Your task to perform on an android device: turn pop-ups on in chrome Image 0: 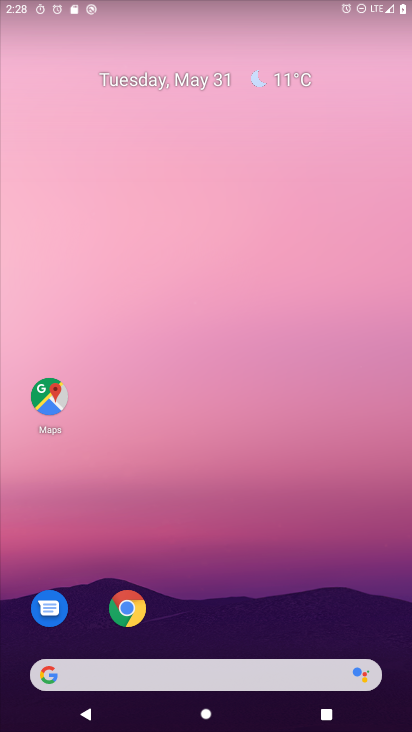
Step 0: click (128, 609)
Your task to perform on an android device: turn pop-ups on in chrome Image 1: 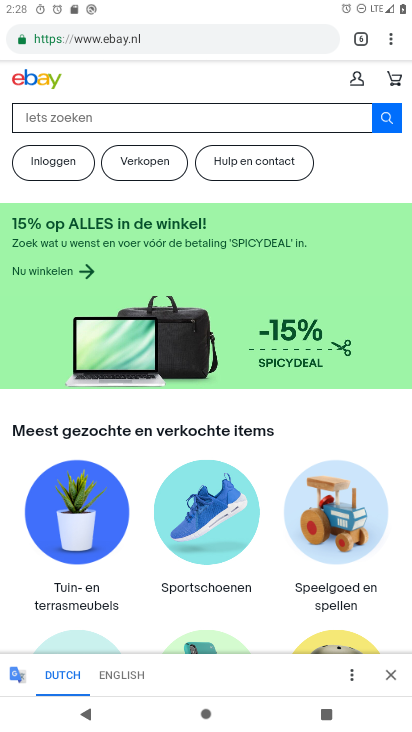
Step 1: click (389, 43)
Your task to perform on an android device: turn pop-ups on in chrome Image 2: 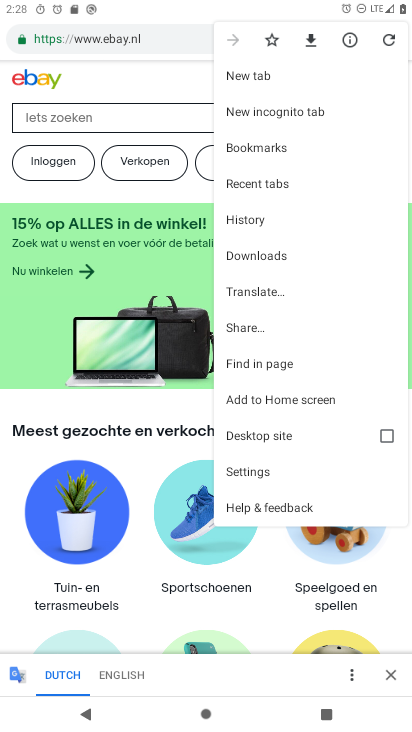
Step 2: click (250, 470)
Your task to perform on an android device: turn pop-ups on in chrome Image 3: 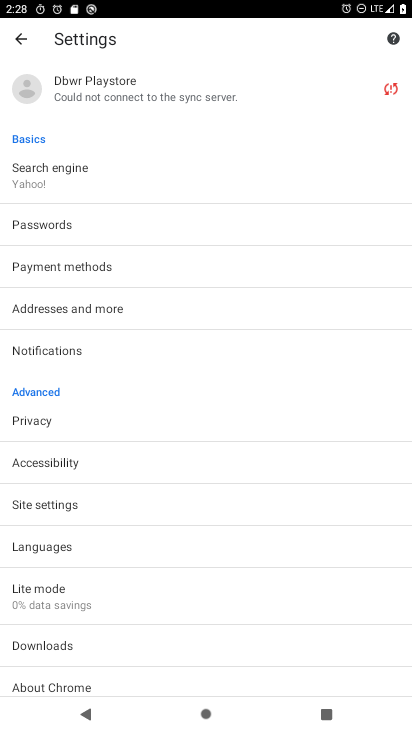
Step 3: click (80, 507)
Your task to perform on an android device: turn pop-ups on in chrome Image 4: 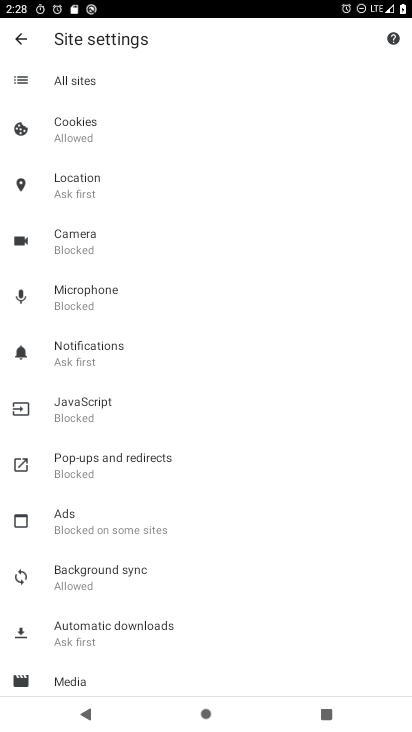
Step 4: click (82, 457)
Your task to perform on an android device: turn pop-ups on in chrome Image 5: 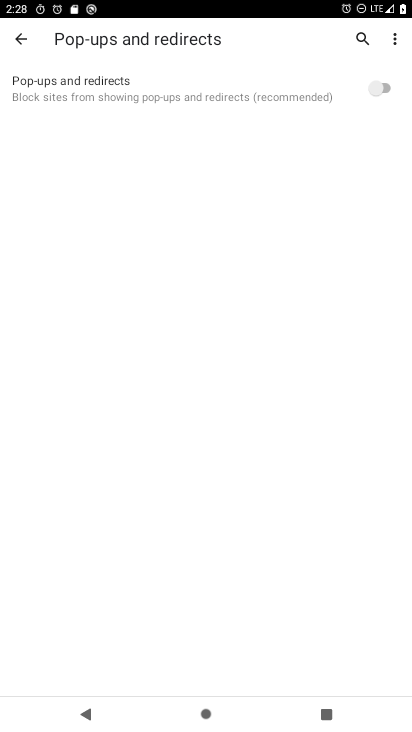
Step 5: click (387, 96)
Your task to perform on an android device: turn pop-ups on in chrome Image 6: 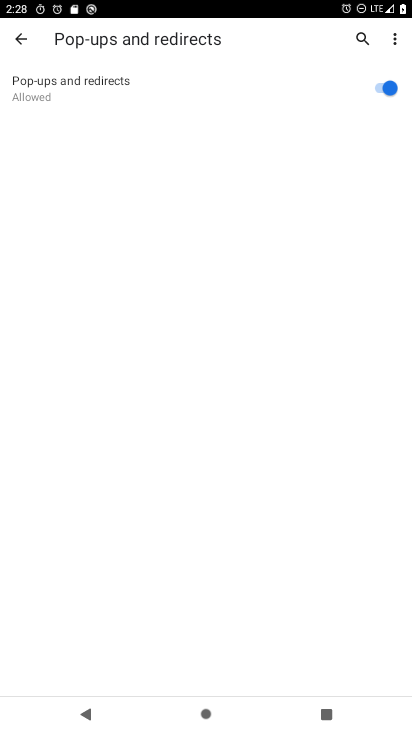
Step 6: task complete